Your task to perform on an android device: Open calendar and show me the fourth week of next month Image 0: 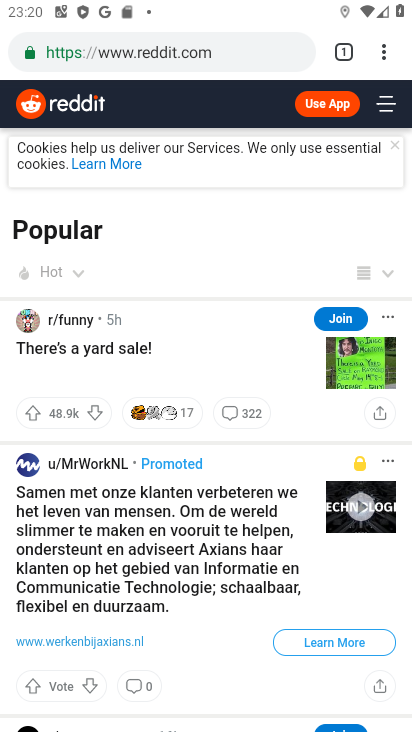
Step 0: press home button
Your task to perform on an android device: Open calendar and show me the fourth week of next month Image 1: 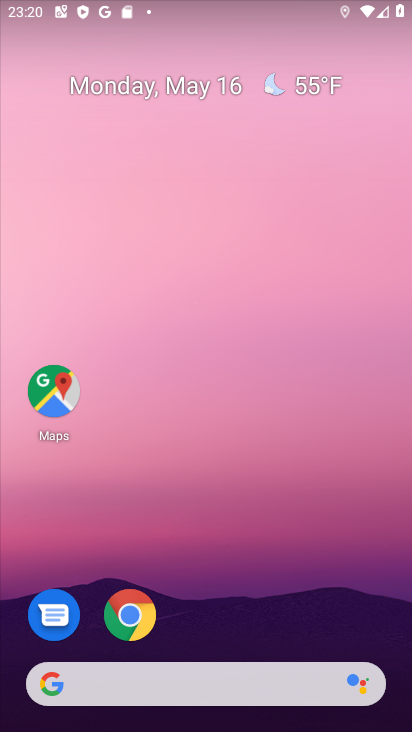
Step 1: drag from (243, 632) to (192, 43)
Your task to perform on an android device: Open calendar and show me the fourth week of next month Image 2: 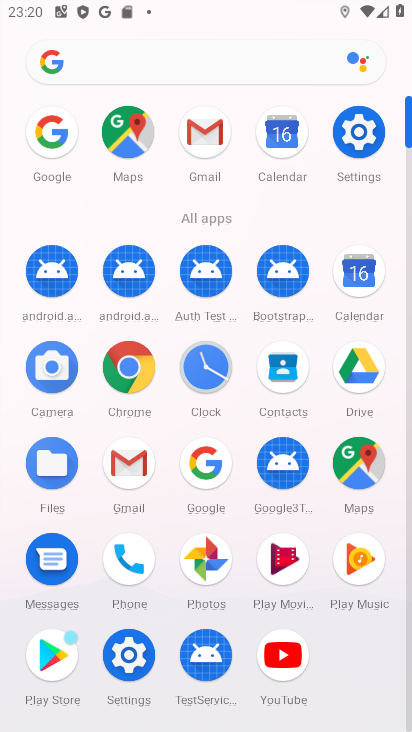
Step 2: click (355, 259)
Your task to perform on an android device: Open calendar and show me the fourth week of next month Image 3: 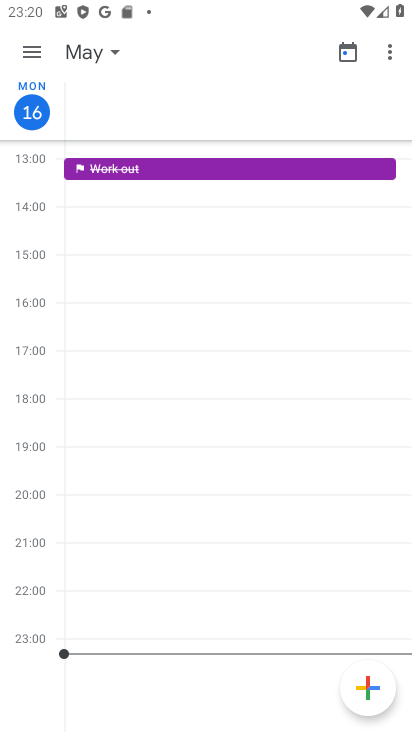
Step 3: click (346, 56)
Your task to perform on an android device: Open calendar and show me the fourth week of next month Image 4: 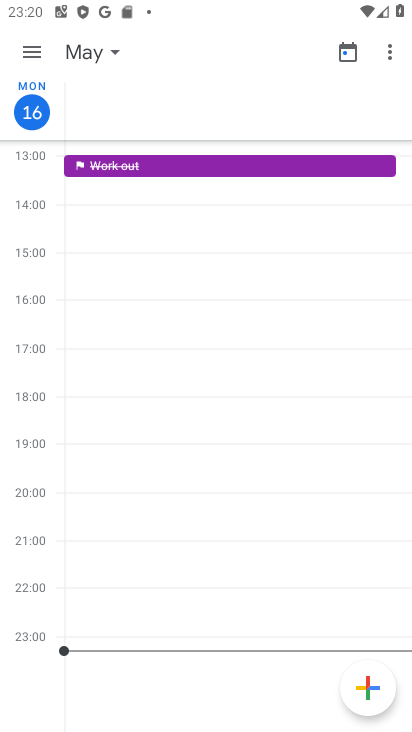
Step 4: click (27, 67)
Your task to perform on an android device: Open calendar and show me the fourth week of next month Image 5: 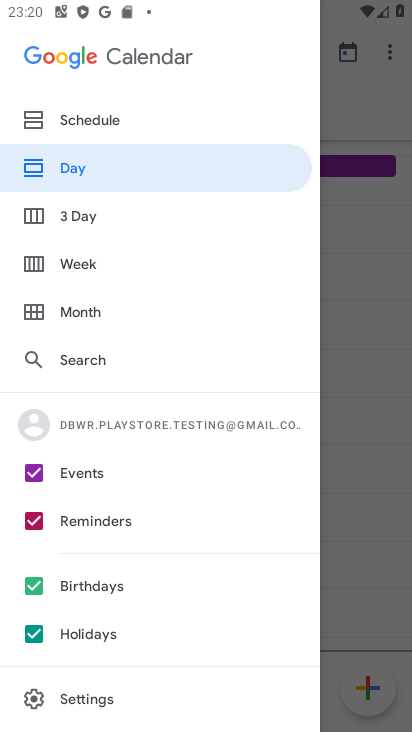
Step 5: click (81, 264)
Your task to perform on an android device: Open calendar and show me the fourth week of next month Image 6: 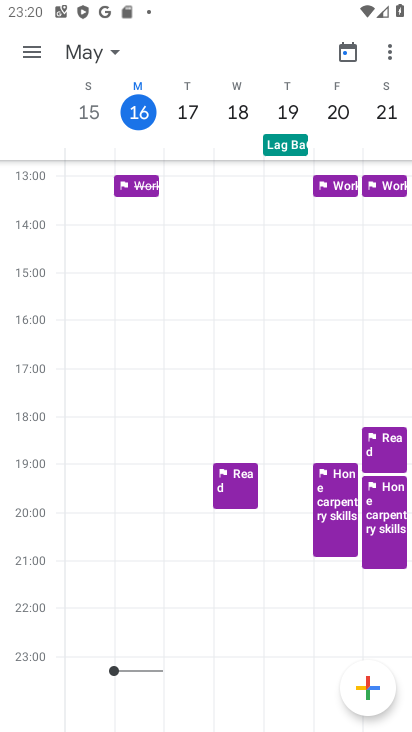
Step 6: task complete